Your task to perform on an android device: empty trash in google photos Image 0: 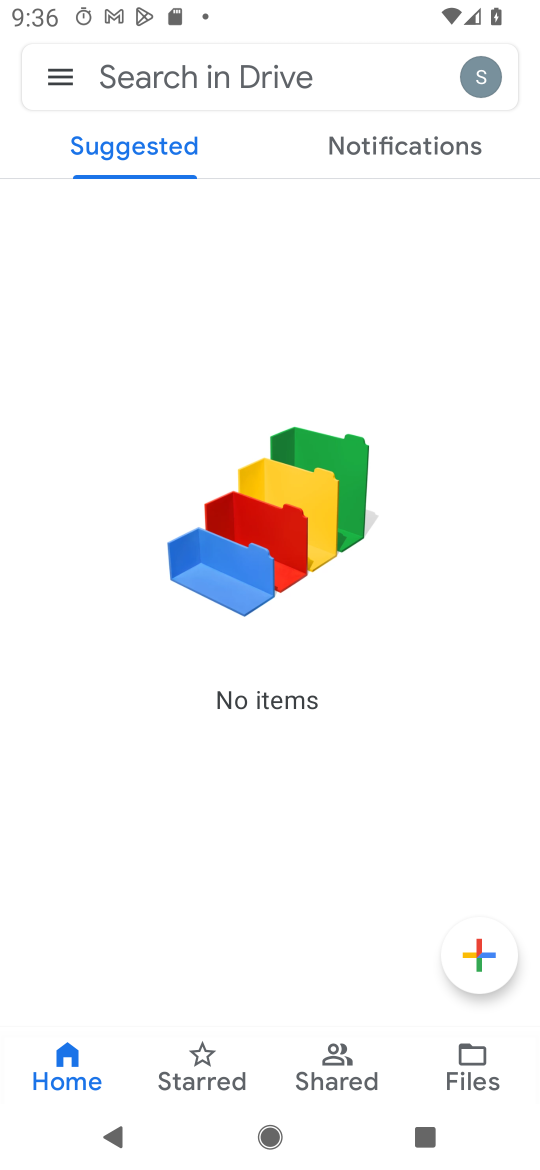
Step 0: press home button
Your task to perform on an android device: empty trash in google photos Image 1: 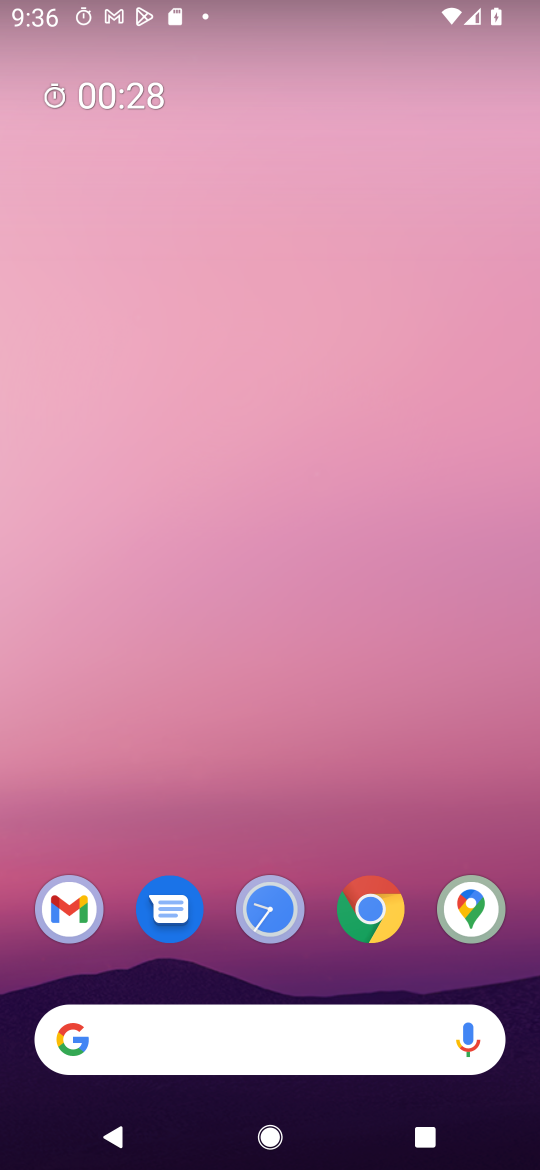
Step 1: drag from (437, 787) to (437, 223)
Your task to perform on an android device: empty trash in google photos Image 2: 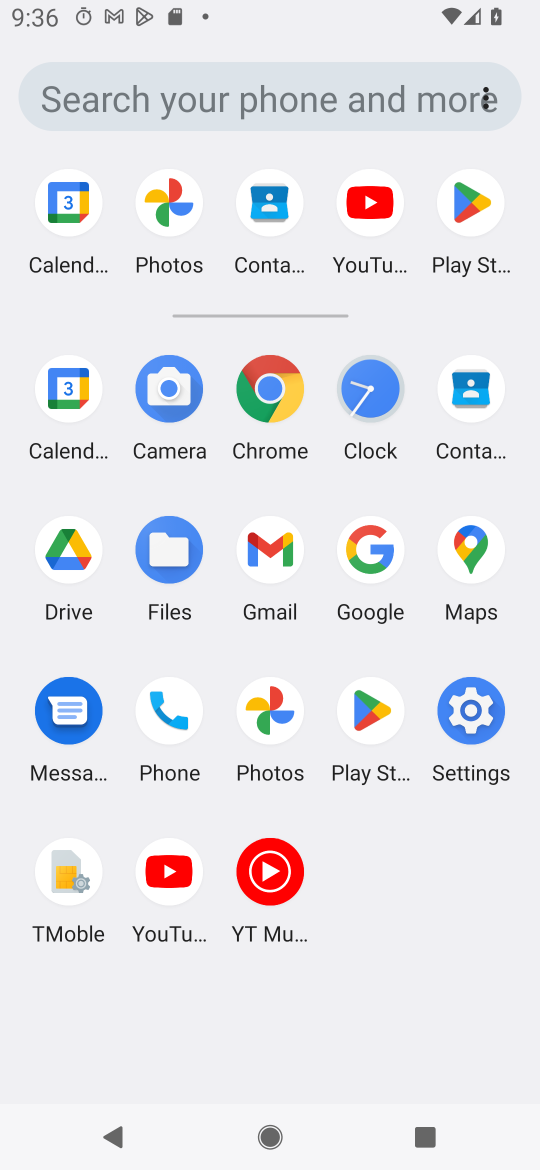
Step 2: click (280, 716)
Your task to perform on an android device: empty trash in google photos Image 3: 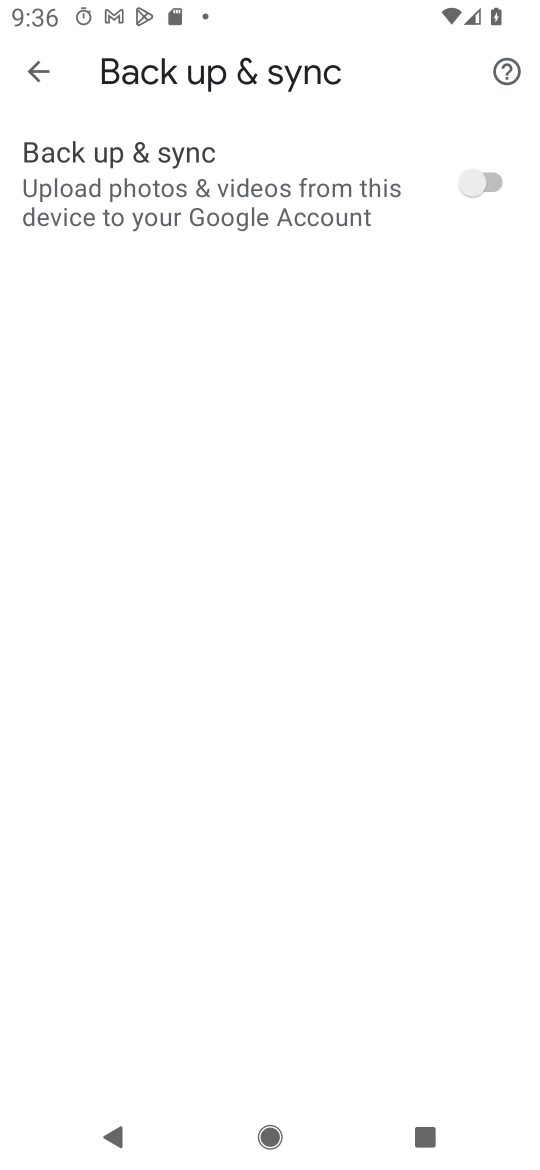
Step 3: press back button
Your task to perform on an android device: empty trash in google photos Image 4: 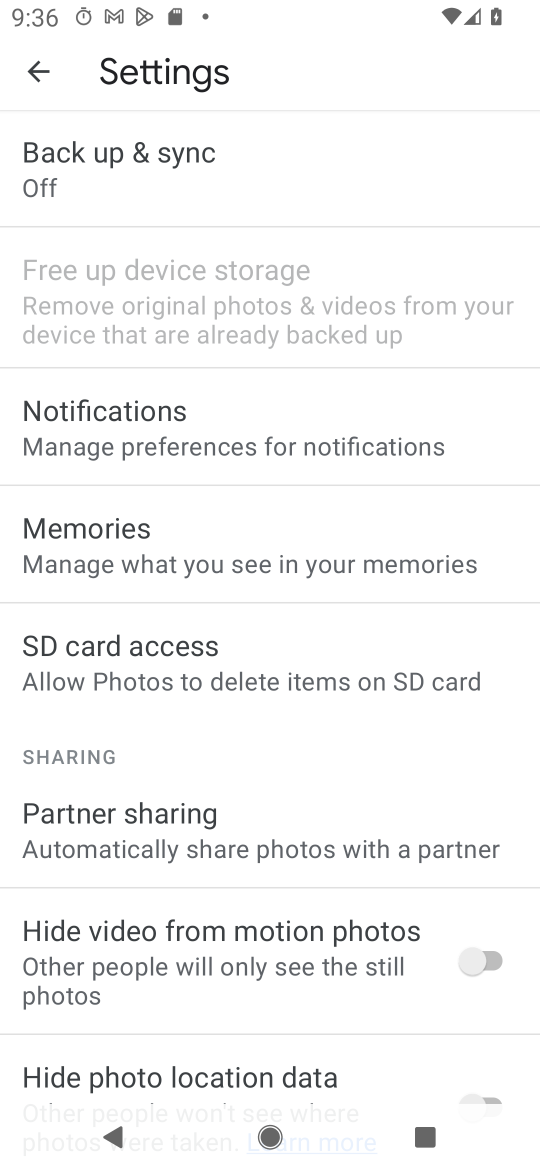
Step 4: press back button
Your task to perform on an android device: empty trash in google photos Image 5: 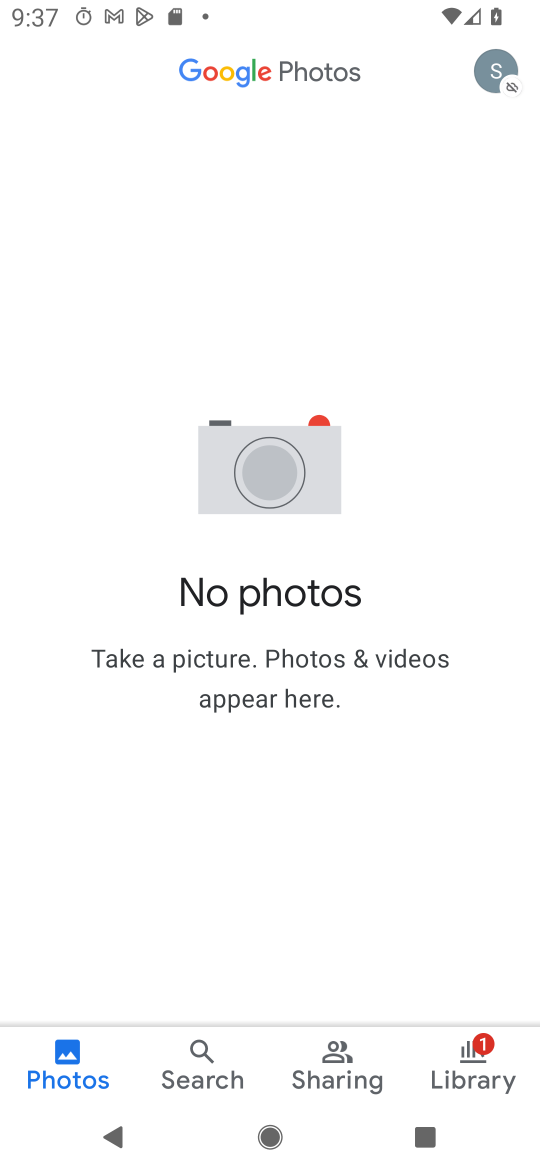
Step 5: click (475, 1059)
Your task to perform on an android device: empty trash in google photos Image 6: 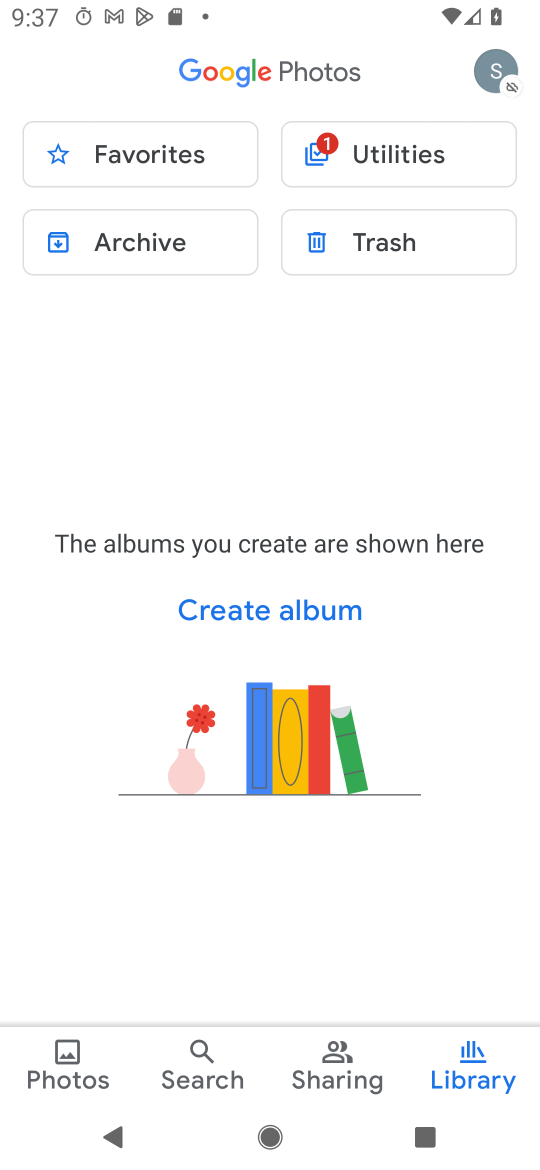
Step 6: click (388, 241)
Your task to perform on an android device: empty trash in google photos Image 7: 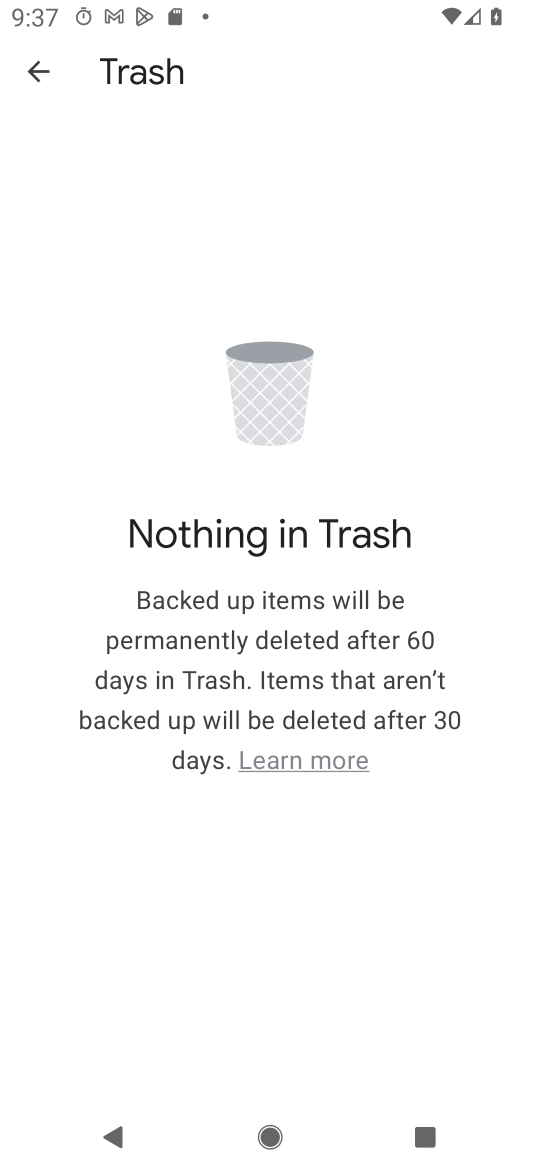
Step 7: task complete